Your task to perform on an android device: Add "dell alienware" to the cart on ebay Image 0: 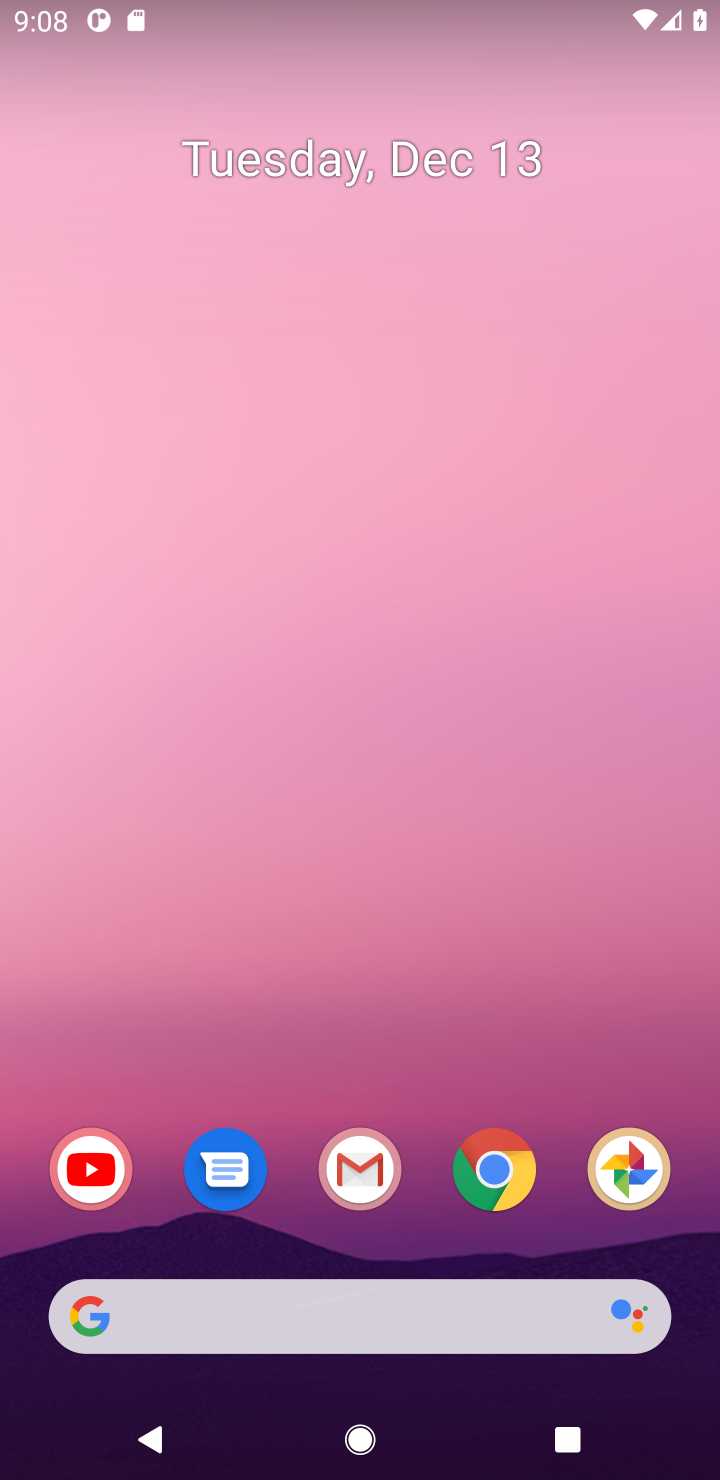
Step 0: click (505, 1155)
Your task to perform on an android device: Add "dell alienware" to the cart on ebay Image 1: 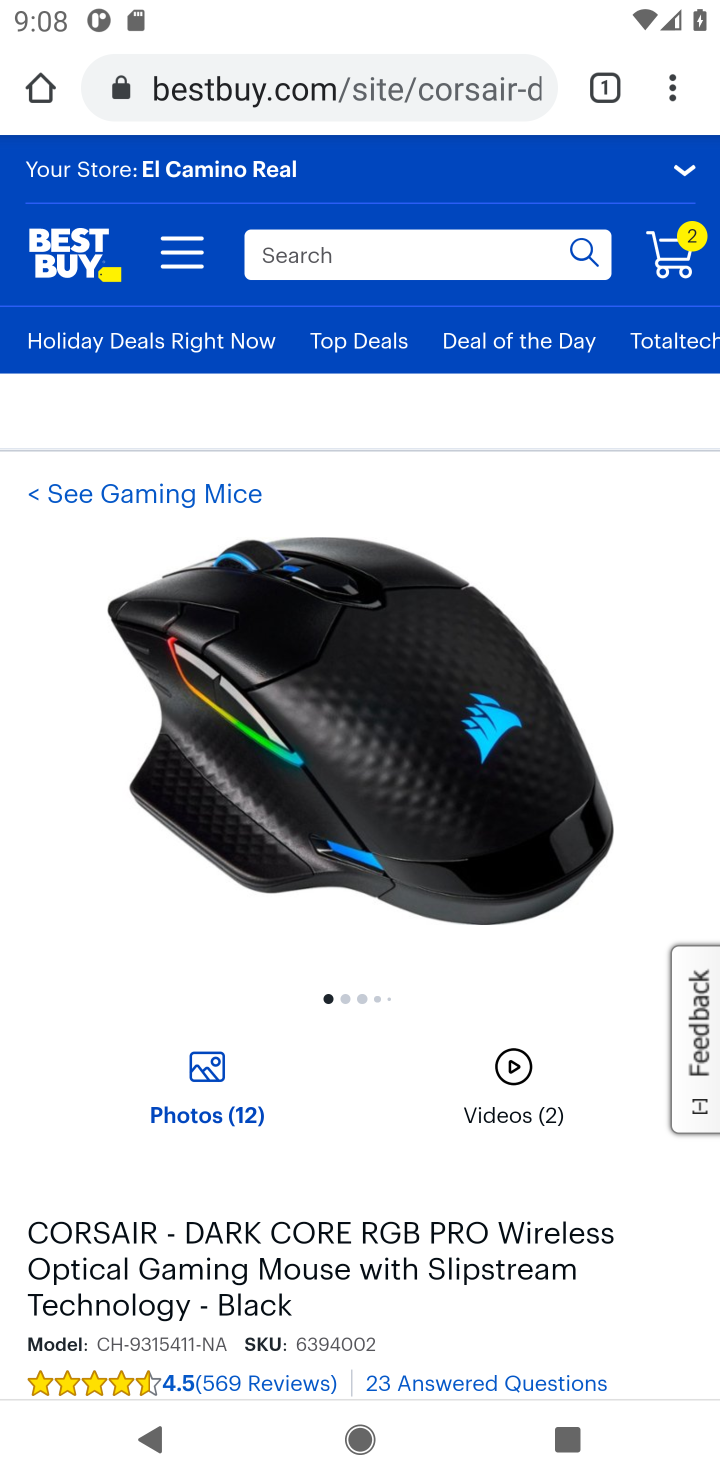
Step 1: click (465, 79)
Your task to perform on an android device: Add "dell alienware" to the cart on ebay Image 2: 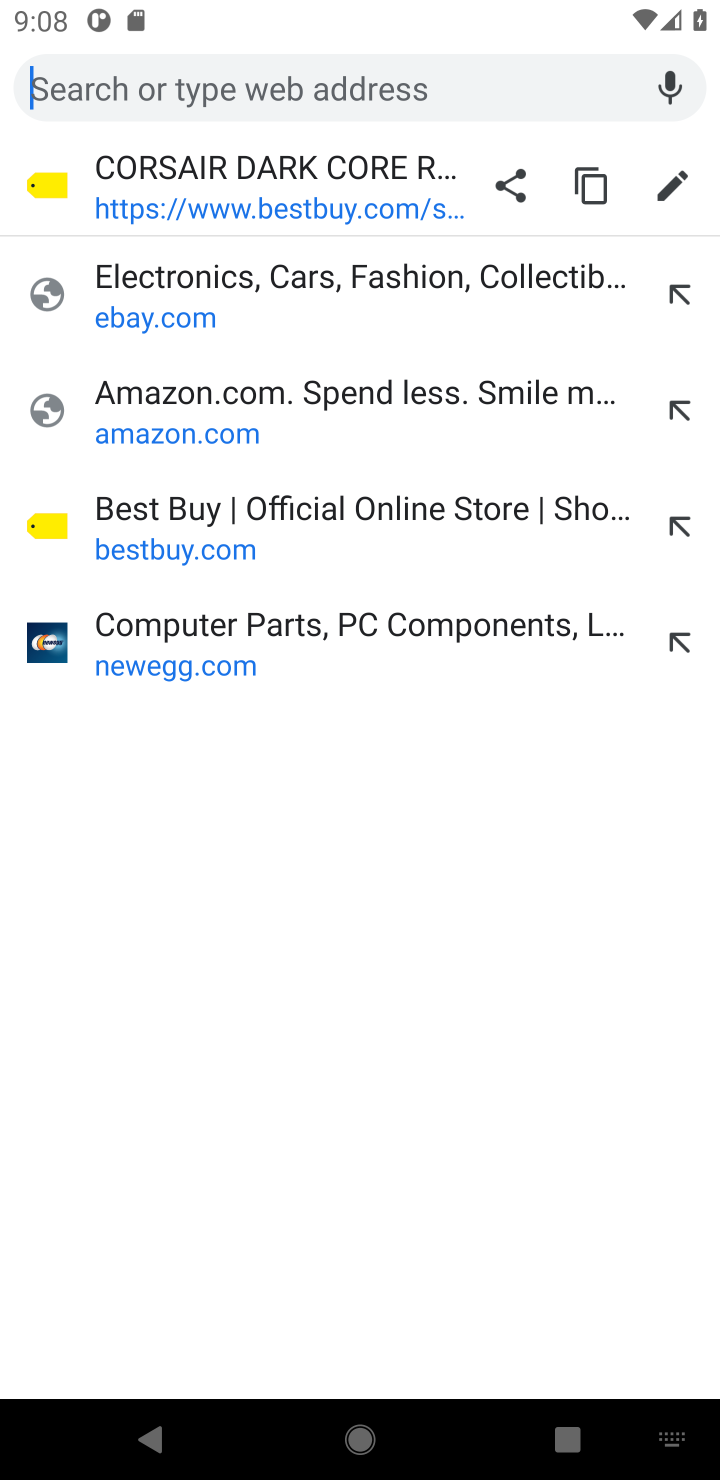
Step 2: type "ebay"
Your task to perform on an android device: Add "dell alienware" to the cart on ebay Image 3: 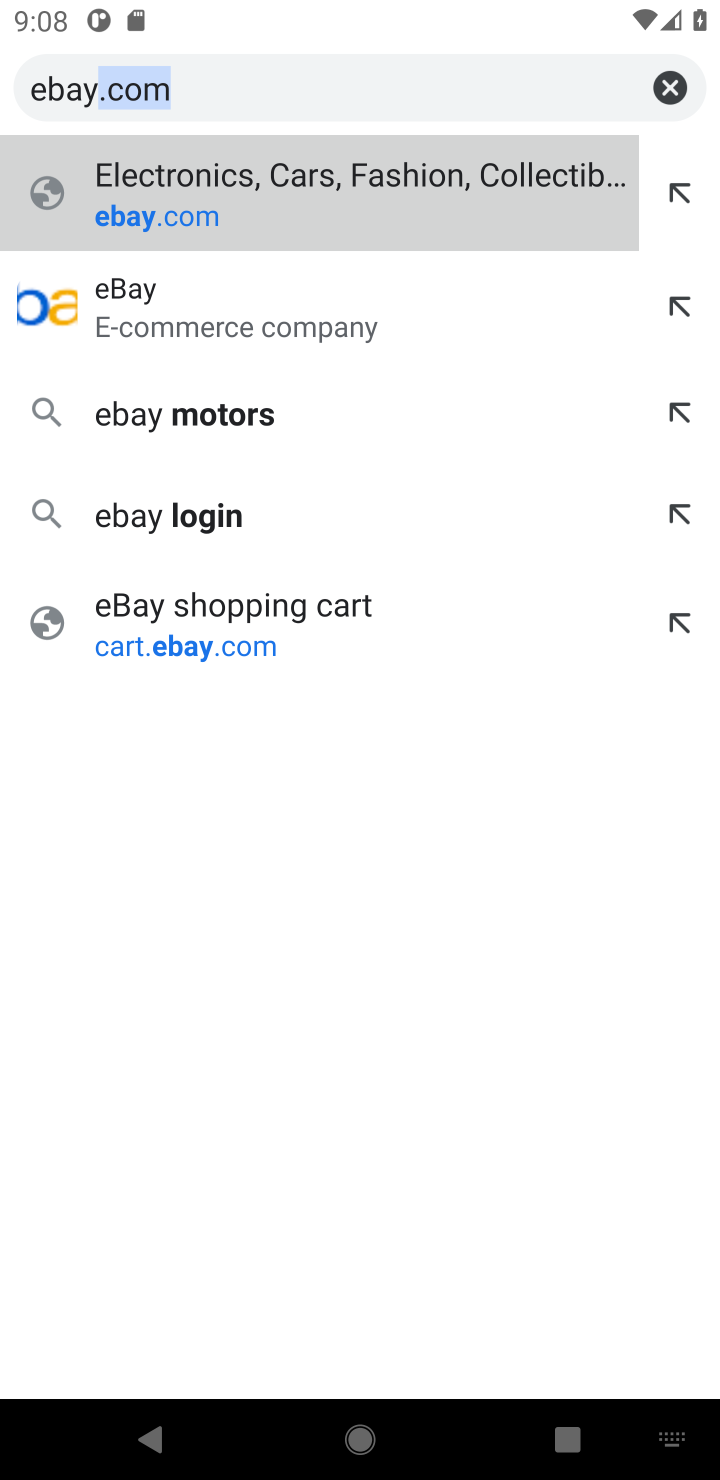
Step 3: click (367, 238)
Your task to perform on an android device: Add "dell alienware" to the cart on ebay Image 4: 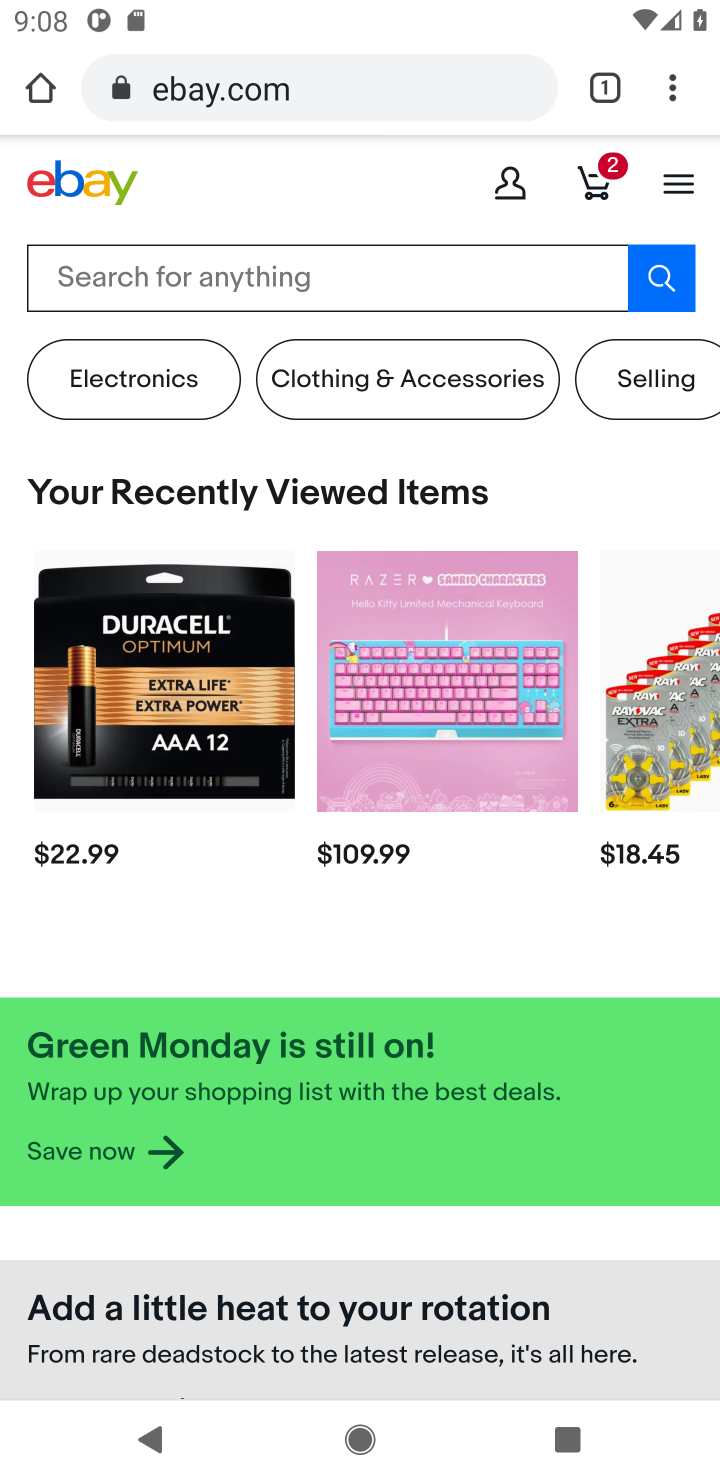
Step 4: click (339, 265)
Your task to perform on an android device: Add "dell alienware" to the cart on ebay Image 5: 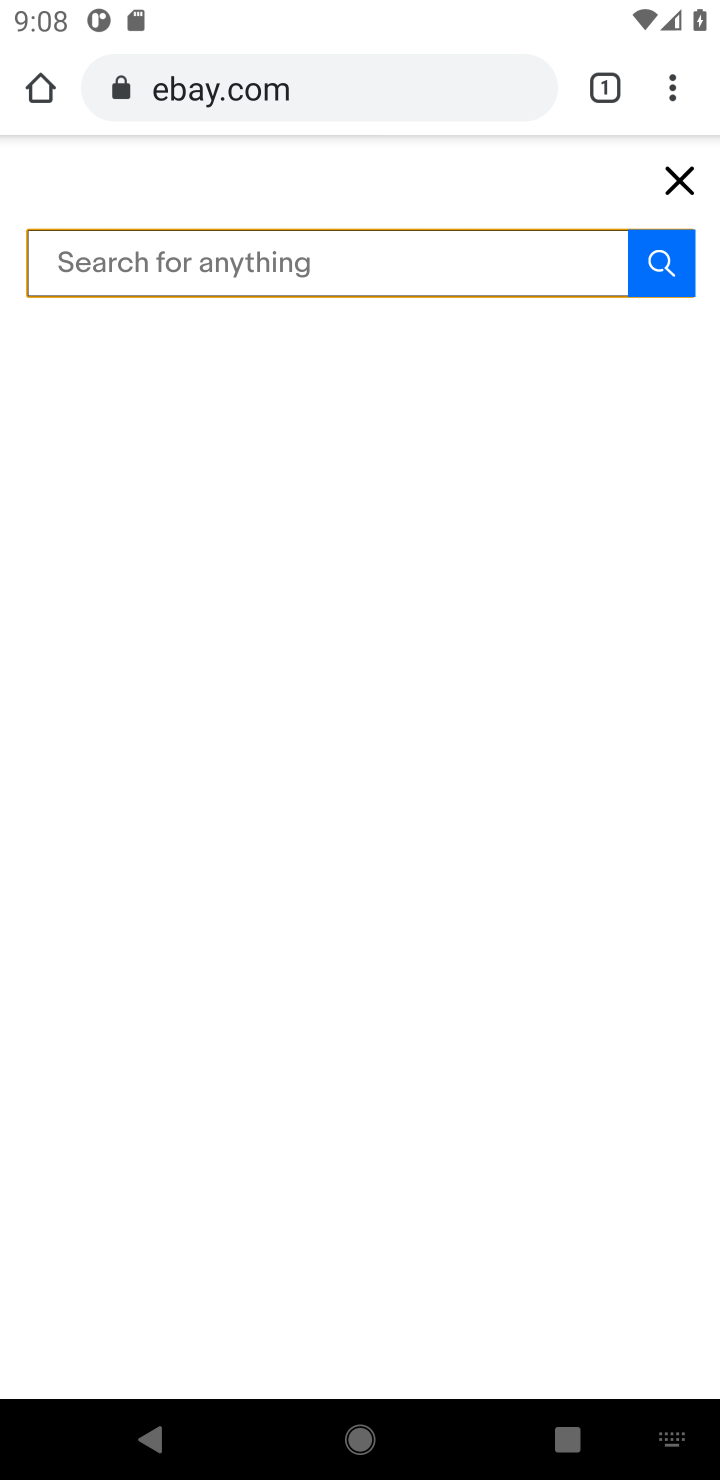
Step 5: type "dell alienware"
Your task to perform on an android device: Add "dell alienware" to the cart on ebay Image 6: 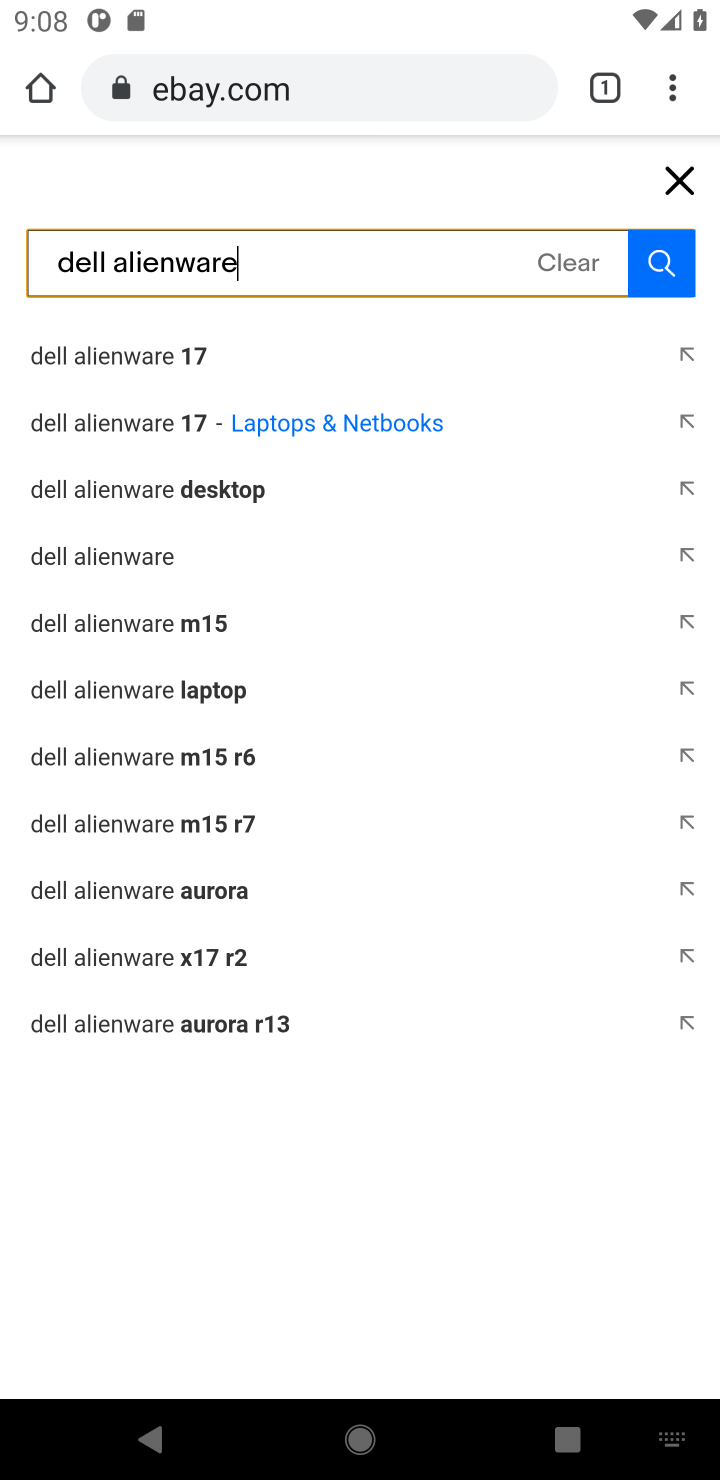
Step 6: click (641, 280)
Your task to perform on an android device: Add "dell alienware" to the cart on ebay Image 7: 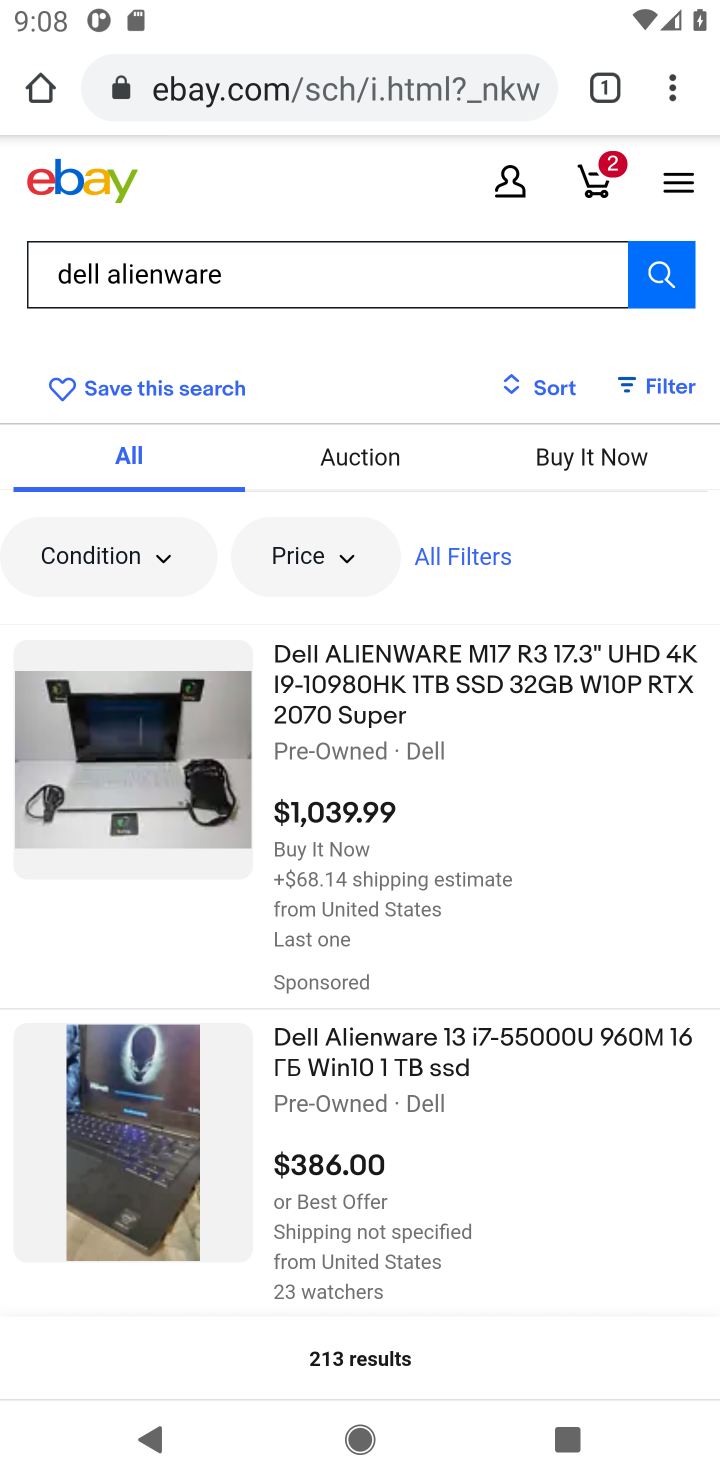
Step 7: click (452, 708)
Your task to perform on an android device: Add "dell alienware" to the cart on ebay Image 8: 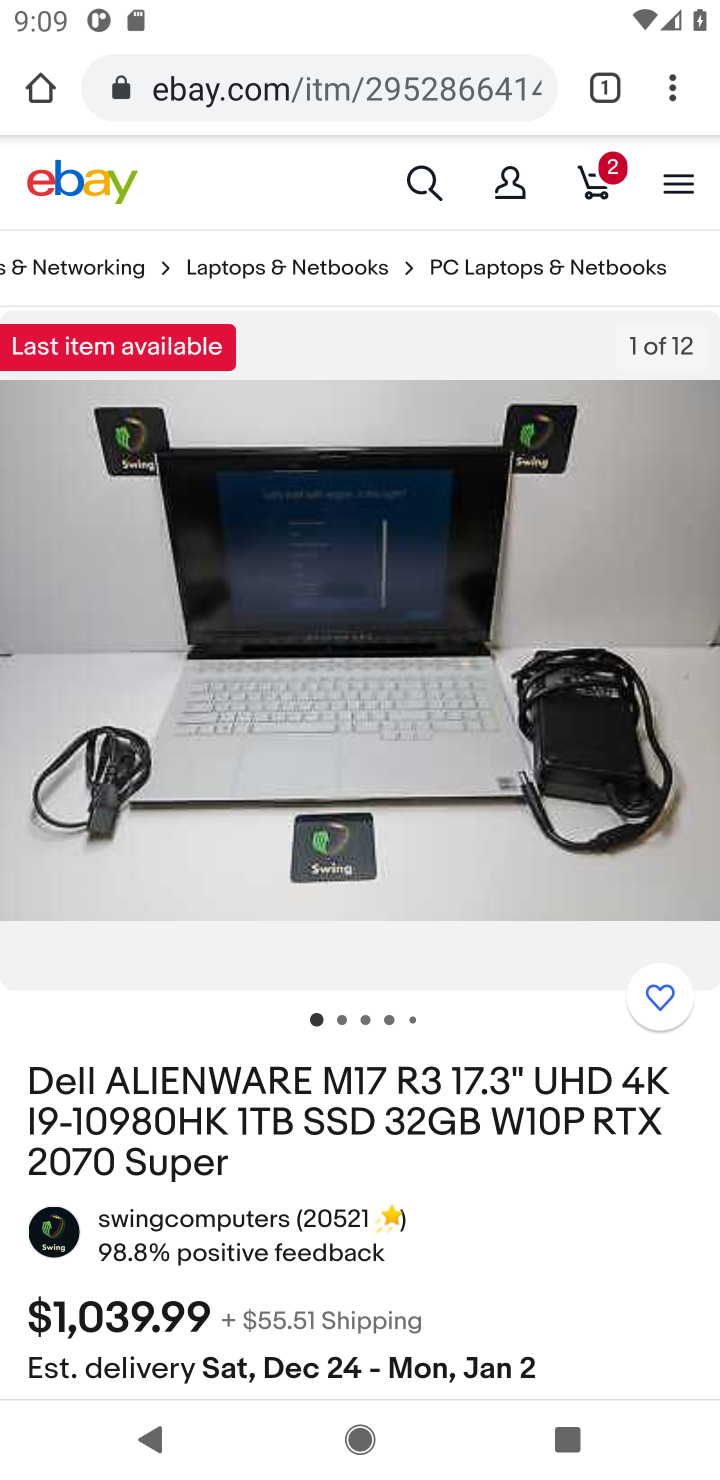
Step 8: drag from (506, 1205) to (450, 544)
Your task to perform on an android device: Add "dell alienware" to the cart on ebay Image 9: 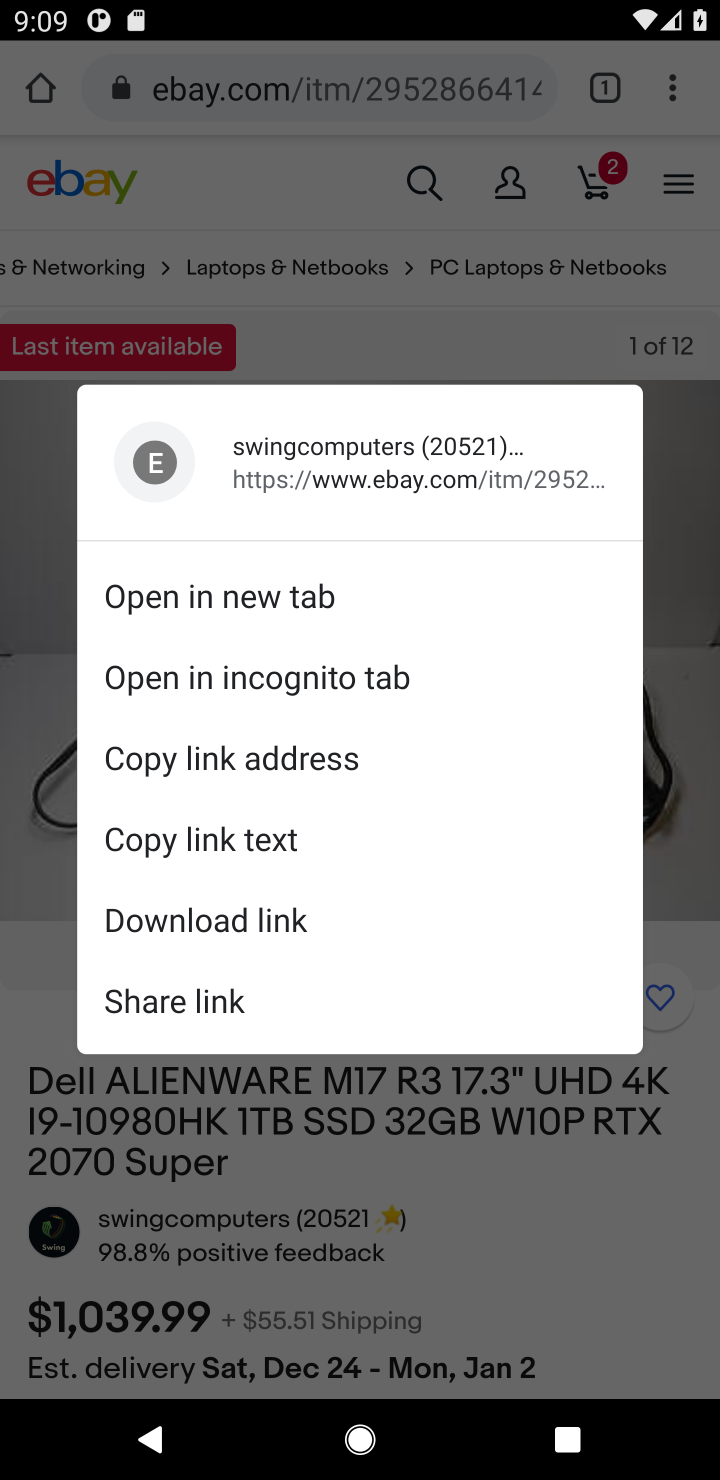
Step 9: click (528, 1113)
Your task to perform on an android device: Add "dell alienware" to the cart on ebay Image 10: 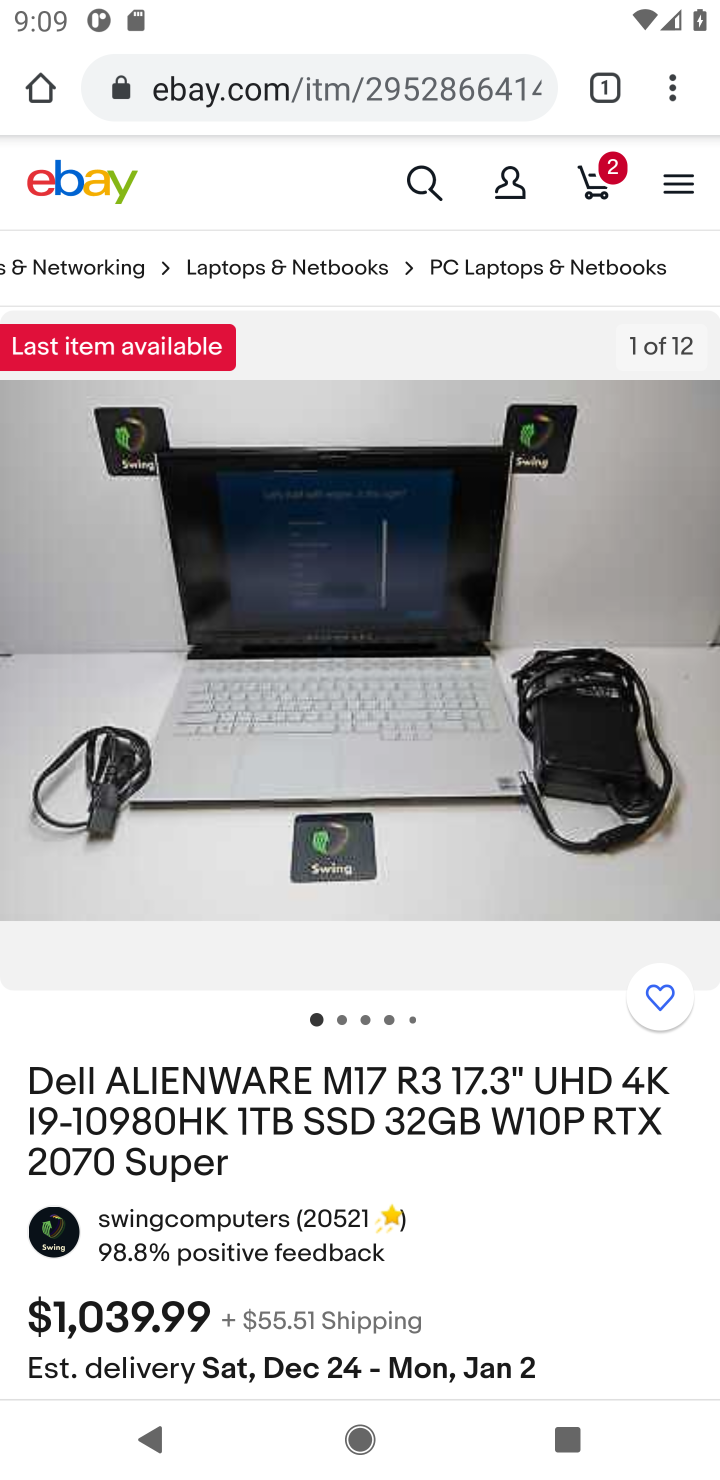
Step 10: drag from (509, 1245) to (179, 14)
Your task to perform on an android device: Add "dell alienware" to the cart on ebay Image 11: 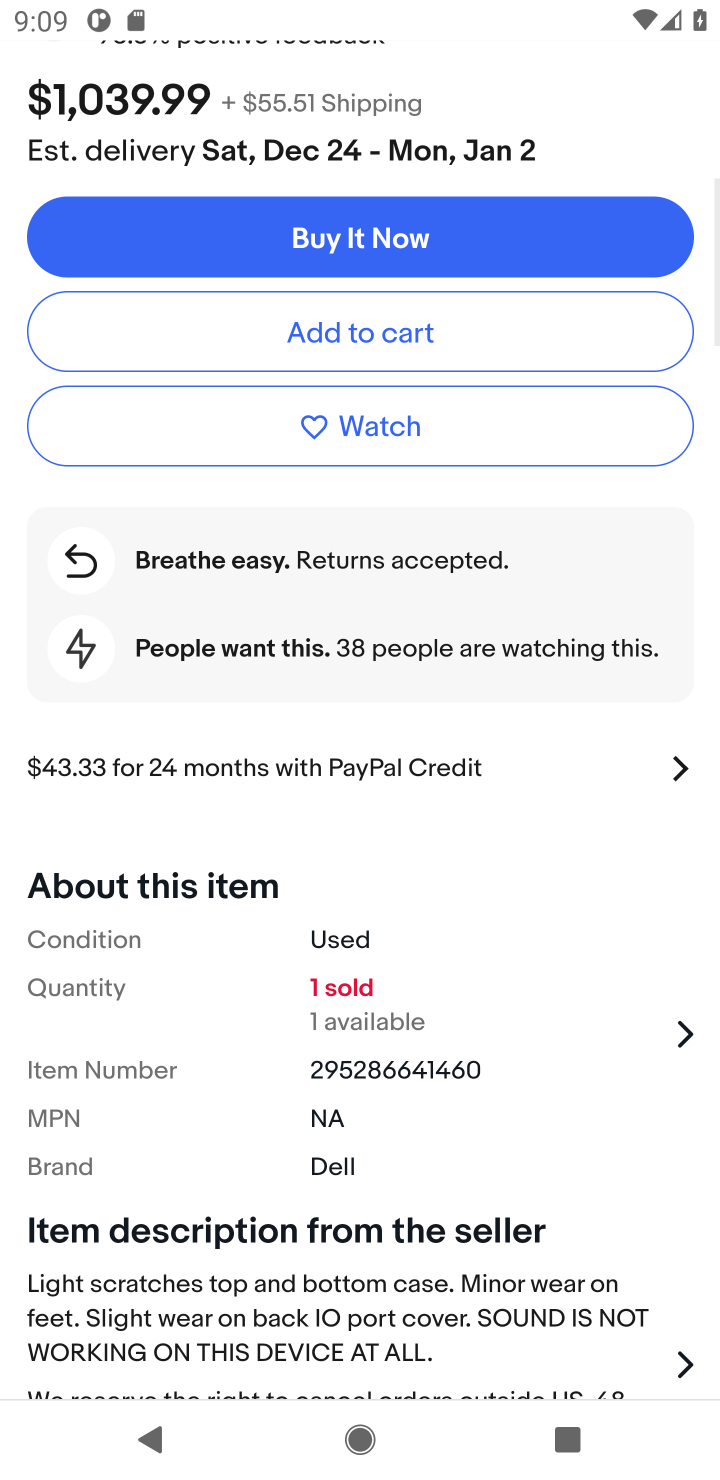
Step 11: click (307, 317)
Your task to perform on an android device: Add "dell alienware" to the cart on ebay Image 12: 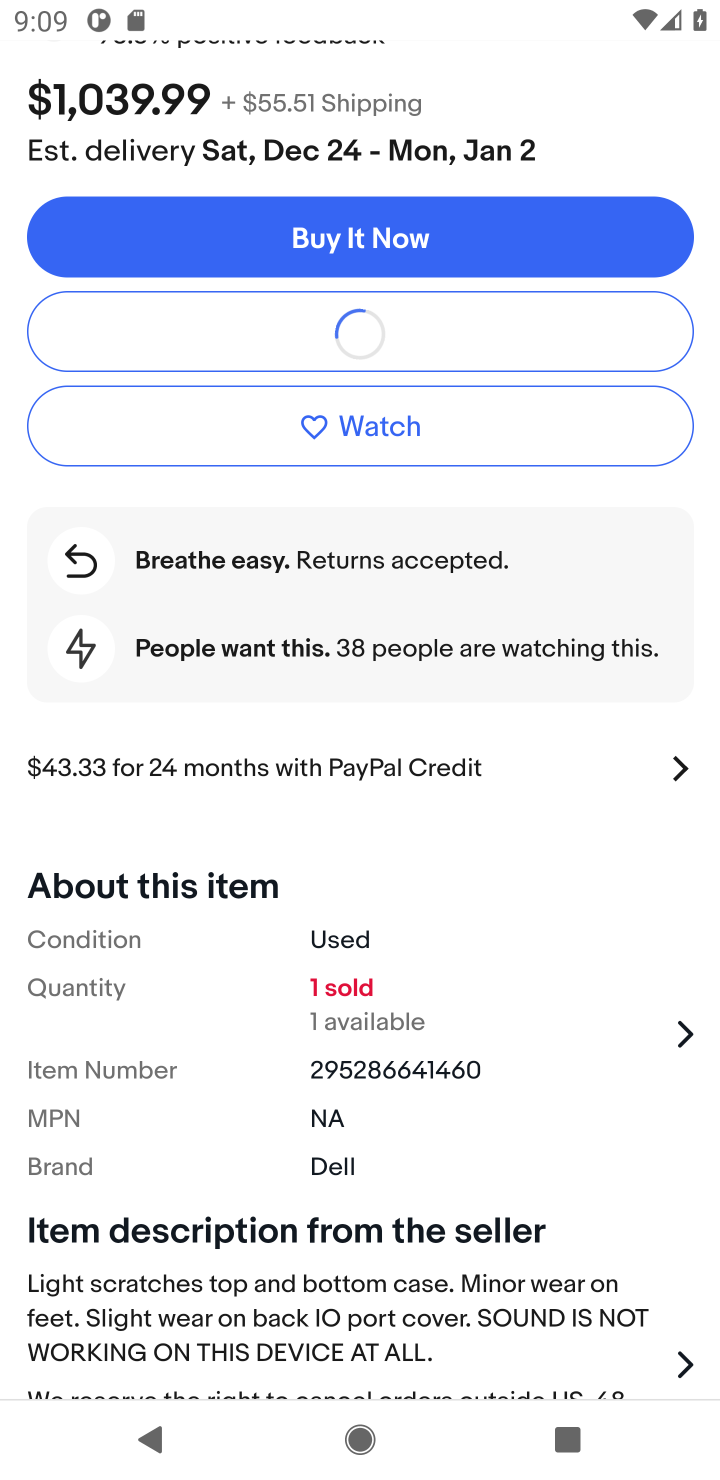
Step 12: task complete